Your task to perform on an android device: Open Yahoo.com Image 0: 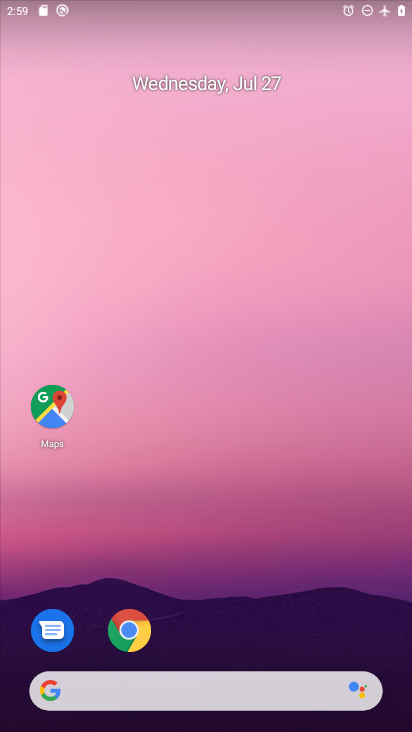
Step 0: click (122, 631)
Your task to perform on an android device: Open Yahoo.com Image 1: 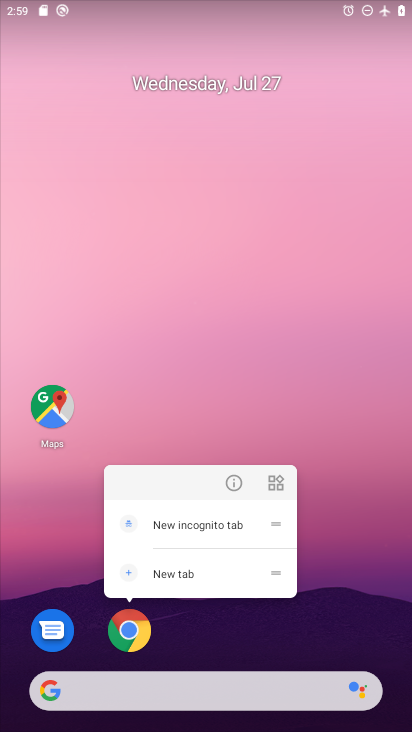
Step 1: click (130, 632)
Your task to perform on an android device: Open Yahoo.com Image 2: 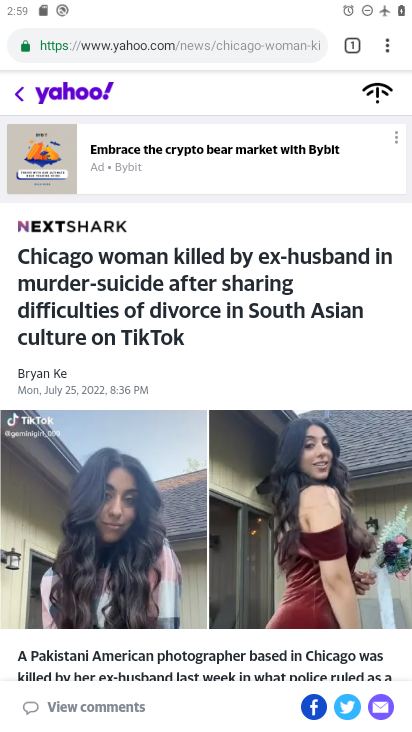
Step 2: task complete